Your task to perform on an android device: toggle sleep mode Image 0: 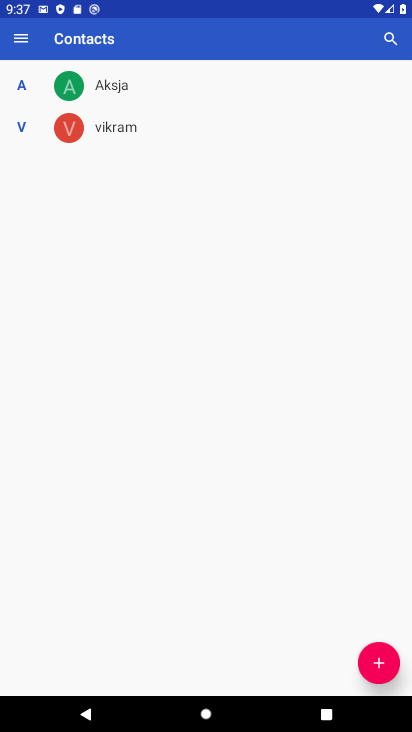
Step 0: drag from (237, 581) to (194, 139)
Your task to perform on an android device: toggle sleep mode Image 1: 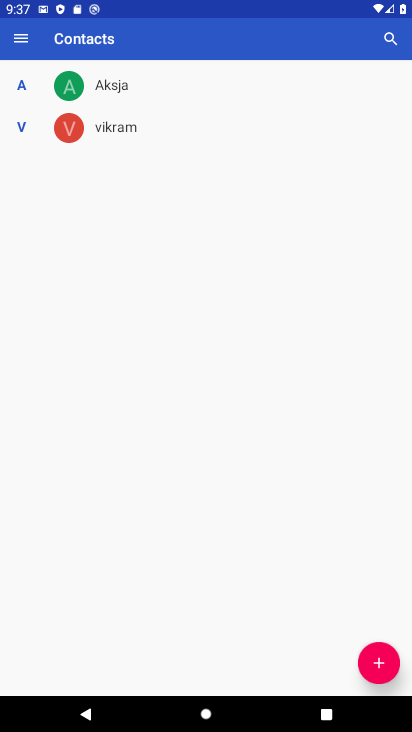
Step 1: press home button
Your task to perform on an android device: toggle sleep mode Image 2: 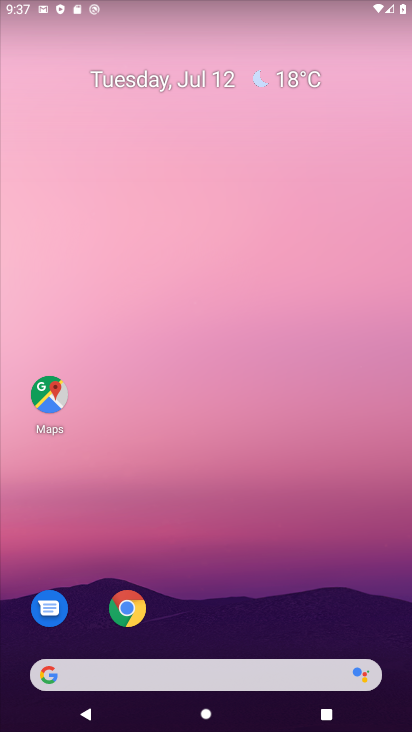
Step 2: drag from (283, 580) to (233, 128)
Your task to perform on an android device: toggle sleep mode Image 3: 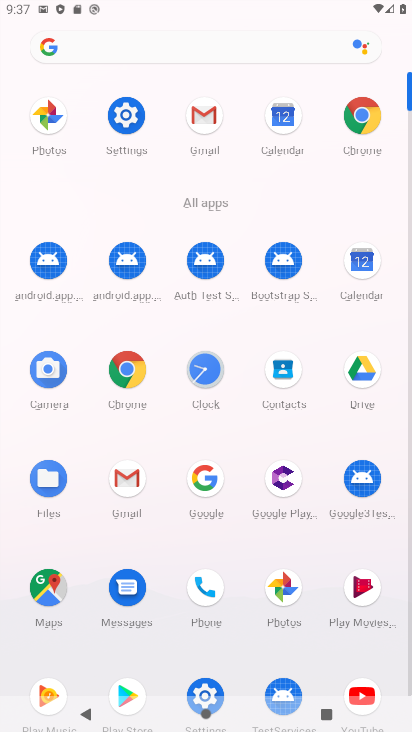
Step 3: click (128, 113)
Your task to perform on an android device: toggle sleep mode Image 4: 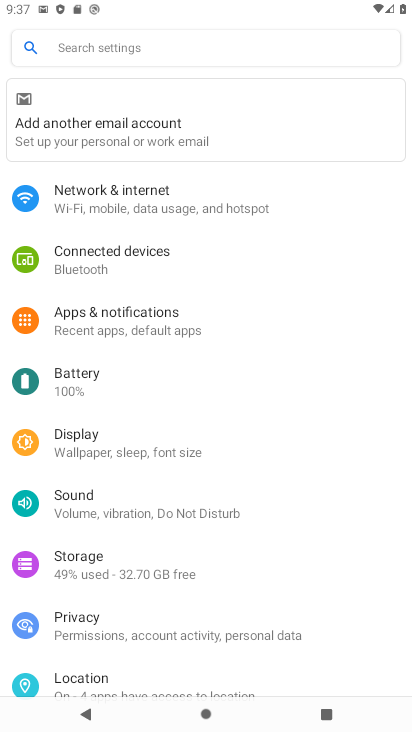
Step 4: click (85, 442)
Your task to perform on an android device: toggle sleep mode Image 5: 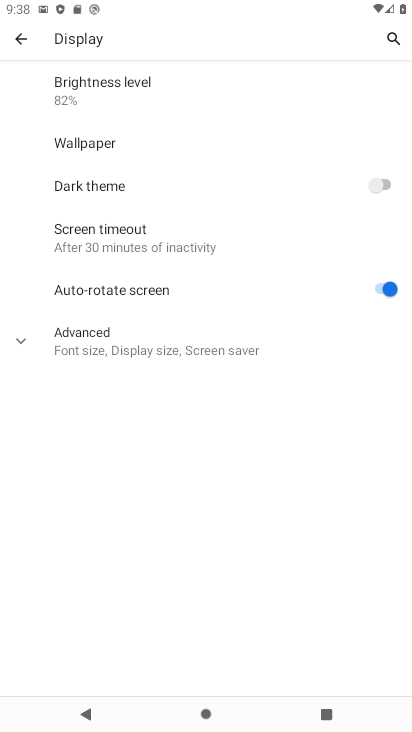
Step 5: task complete